Your task to perform on an android device: open app "Spotify" (install if not already installed) and enter user name: "infallible@icloud.com" and password: "implored" Image 0: 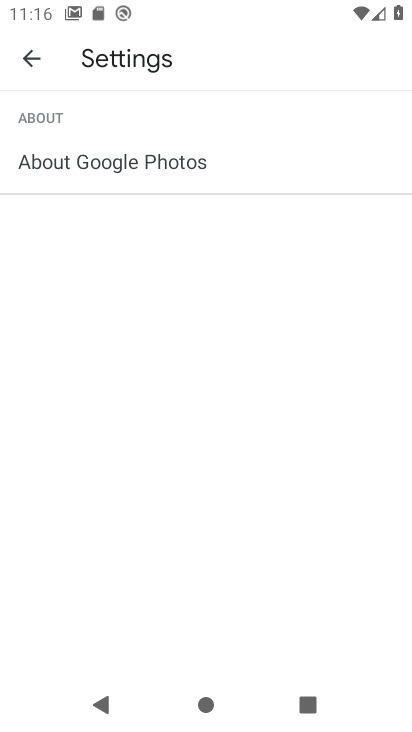
Step 0: press home button
Your task to perform on an android device: open app "Spotify" (install if not already installed) and enter user name: "infallible@icloud.com" and password: "implored" Image 1: 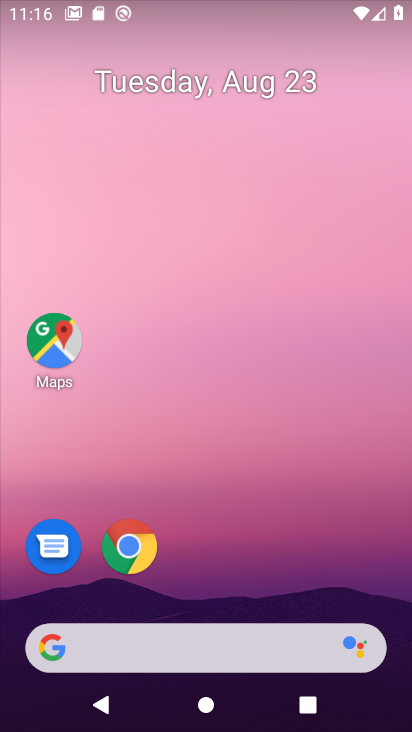
Step 1: drag from (213, 496) to (284, 130)
Your task to perform on an android device: open app "Spotify" (install if not already installed) and enter user name: "infallible@icloud.com" and password: "implored" Image 2: 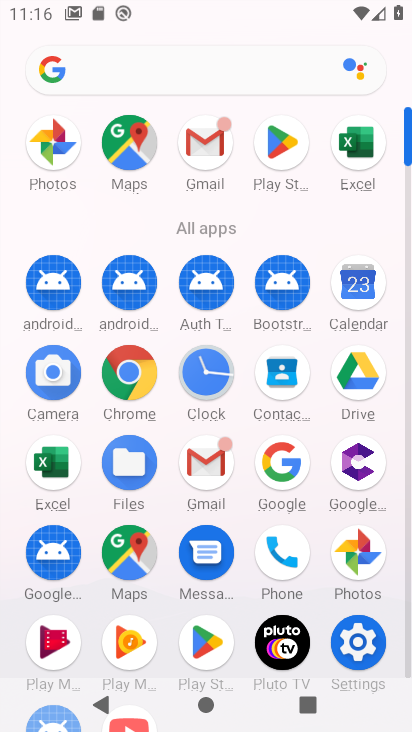
Step 2: click (284, 146)
Your task to perform on an android device: open app "Spotify" (install if not already installed) and enter user name: "infallible@icloud.com" and password: "implored" Image 3: 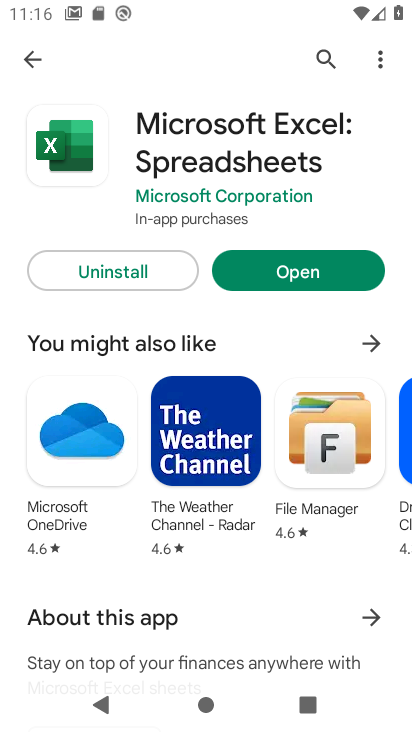
Step 3: click (28, 59)
Your task to perform on an android device: open app "Spotify" (install if not already installed) and enter user name: "infallible@icloud.com" and password: "implored" Image 4: 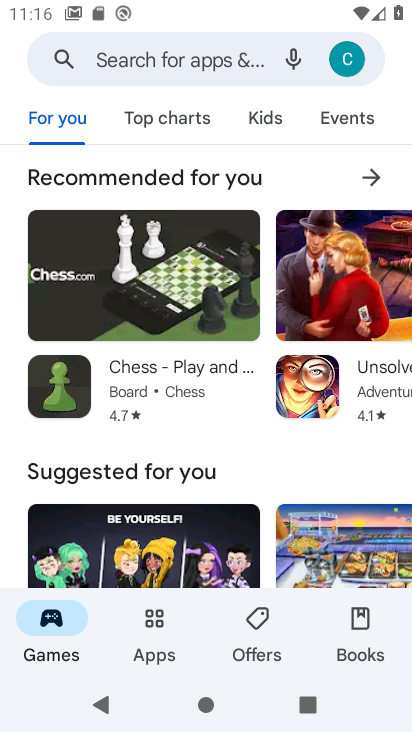
Step 4: click (175, 50)
Your task to perform on an android device: open app "Spotify" (install if not already installed) and enter user name: "infallible@icloud.com" and password: "implored" Image 5: 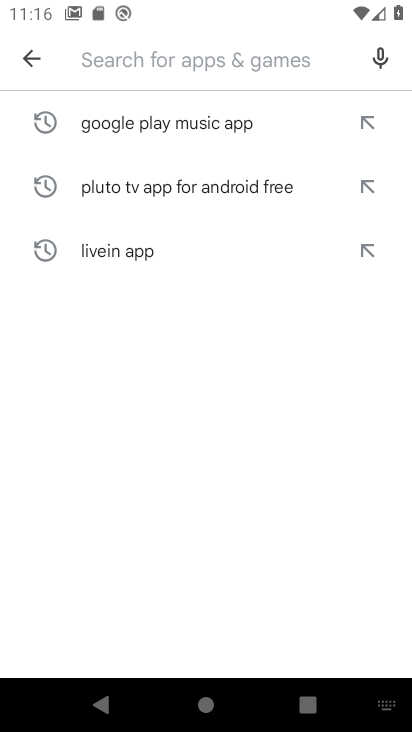
Step 5: type "Spotify "
Your task to perform on an android device: open app "Spotify" (install if not already installed) and enter user name: "infallible@icloud.com" and password: "implored" Image 6: 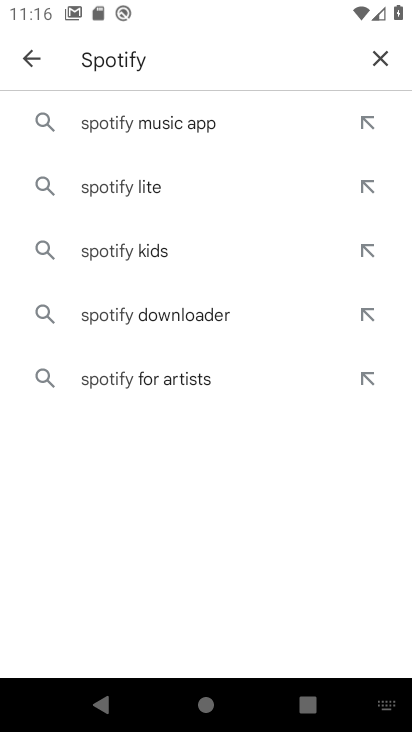
Step 6: click (155, 123)
Your task to perform on an android device: open app "Spotify" (install if not already installed) and enter user name: "infallible@icloud.com" and password: "implored" Image 7: 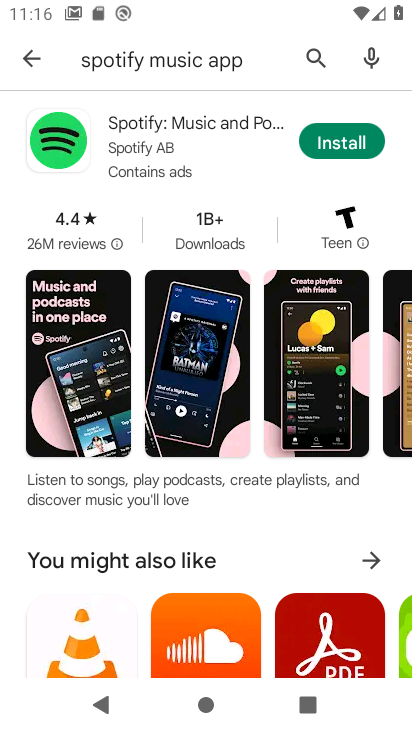
Step 7: click (331, 142)
Your task to perform on an android device: open app "Spotify" (install if not already installed) and enter user name: "infallible@icloud.com" and password: "implored" Image 8: 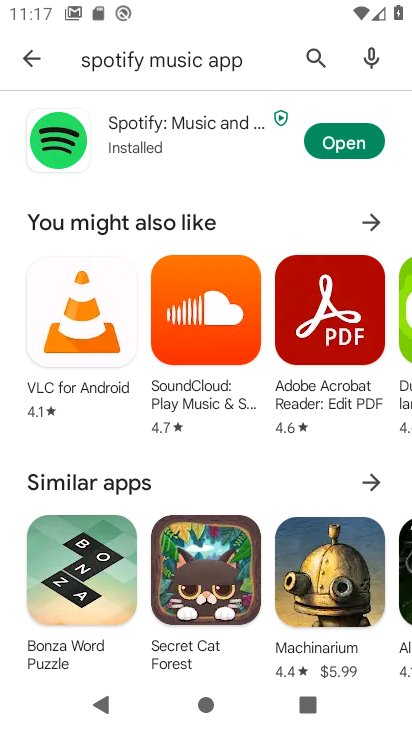
Step 8: click (331, 142)
Your task to perform on an android device: open app "Spotify" (install if not already installed) and enter user name: "infallible@icloud.com" and password: "implored" Image 9: 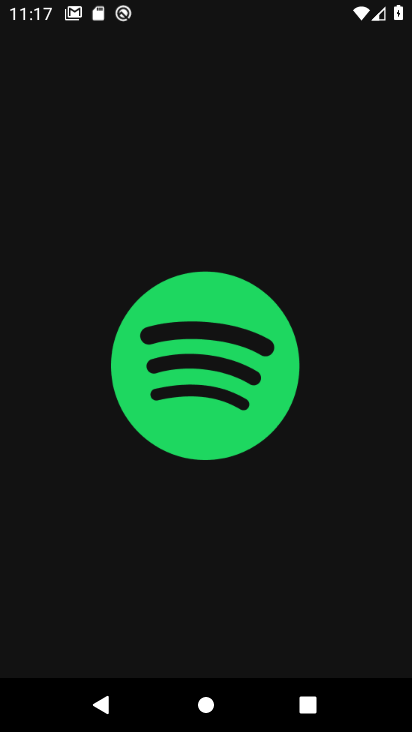
Step 9: task complete